Your task to perform on an android device: Search for 35 best books of all time Image 0: 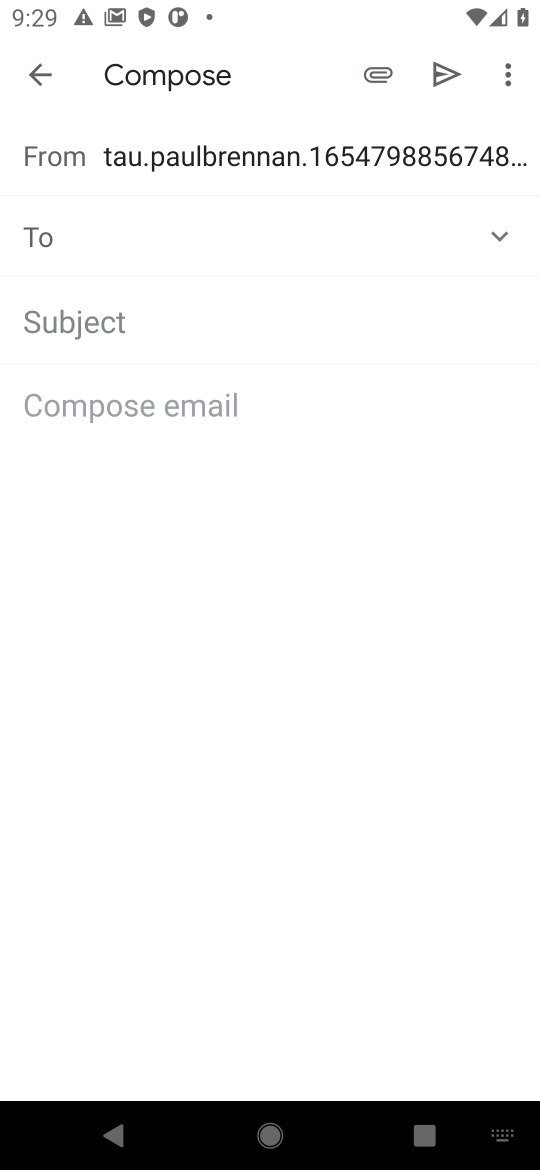
Step 0: press home button
Your task to perform on an android device: Search for 35 best books of all time Image 1: 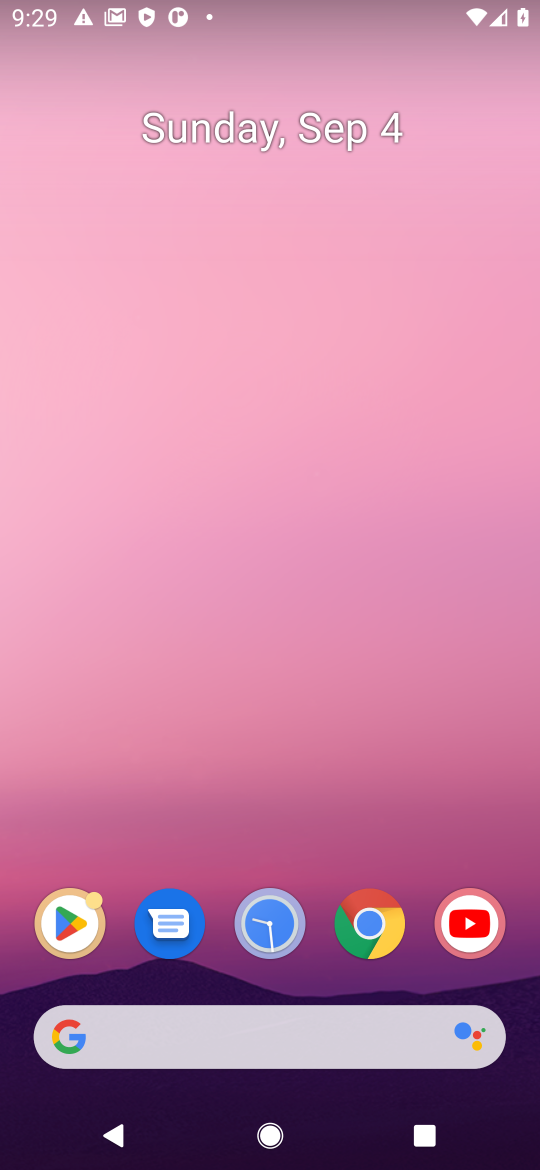
Step 1: click (362, 1031)
Your task to perform on an android device: Search for 35 best books of all time Image 2: 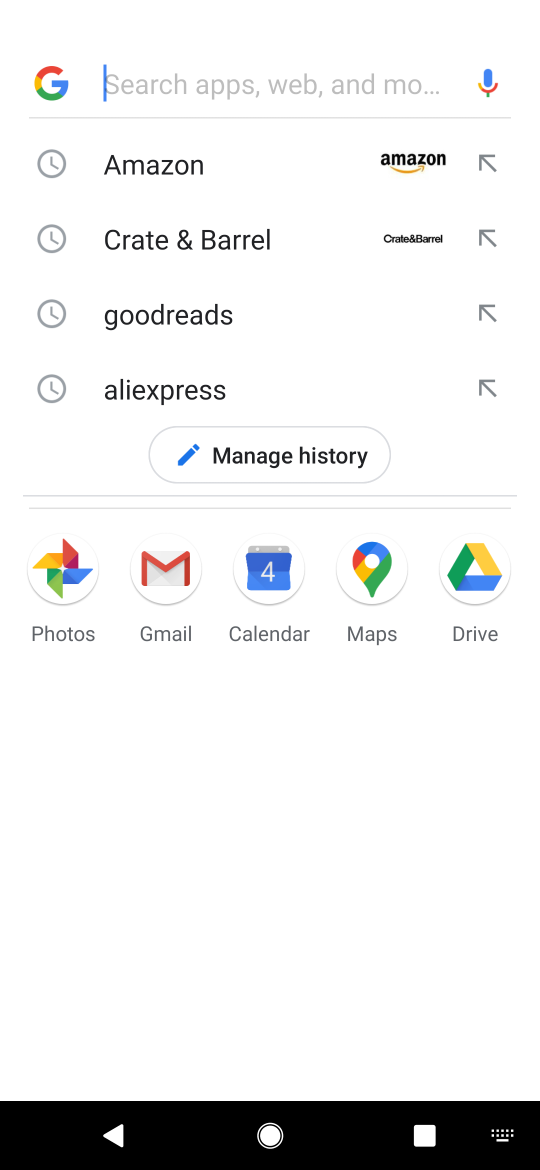
Step 2: press enter
Your task to perform on an android device: Search for 35 best books of all time Image 3: 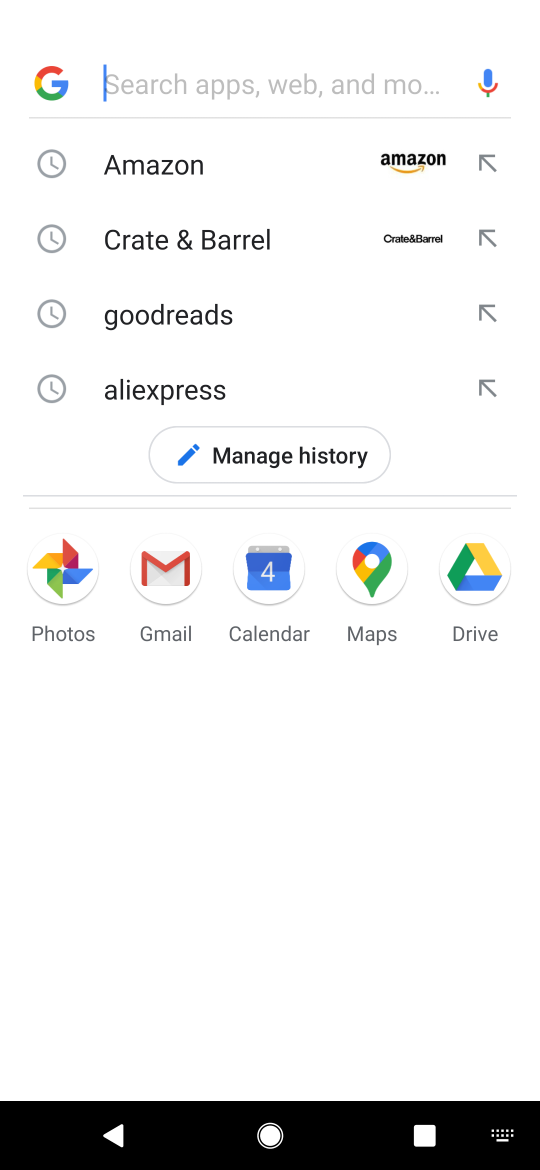
Step 3: type "35 best books of all time"
Your task to perform on an android device: Search for 35 best books of all time Image 4: 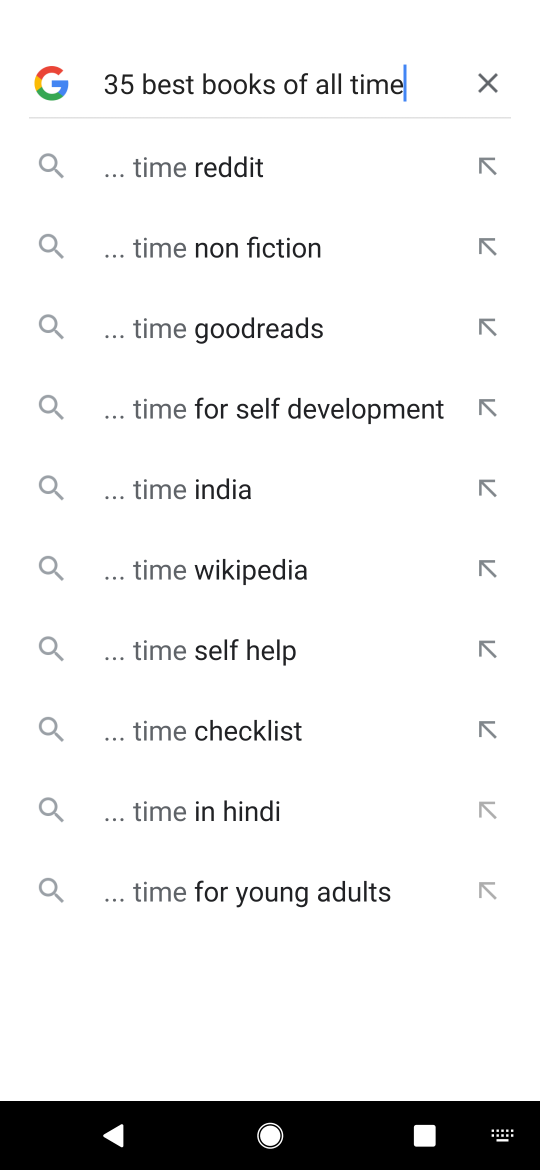
Step 4: press enter
Your task to perform on an android device: Search for 35 best books of all time Image 5: 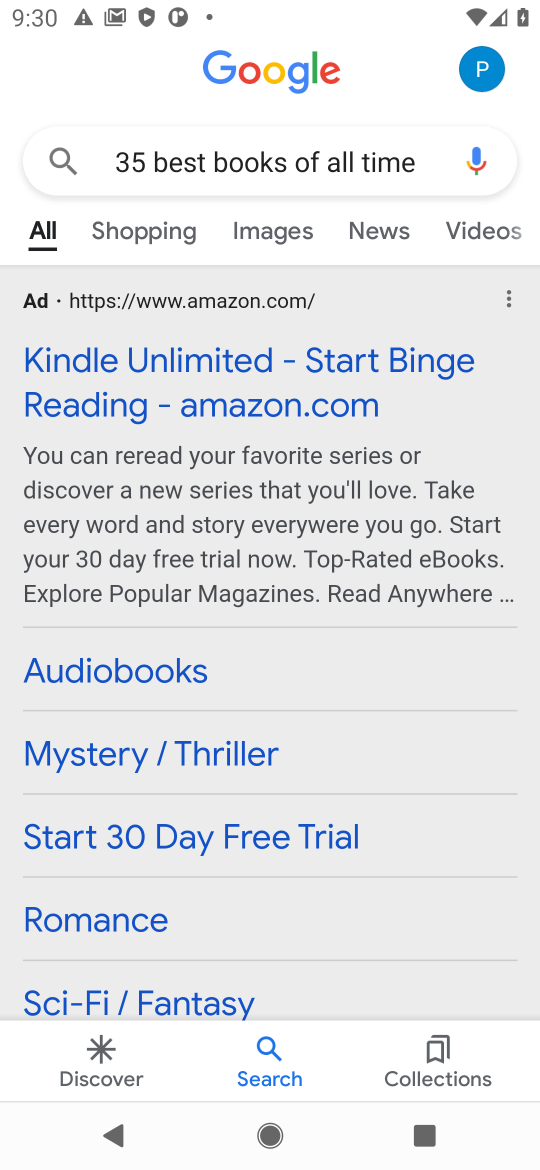
Step 5: click (254, 383)
Your task to perform on an android device: Search for 35 best books of all time Image 6: 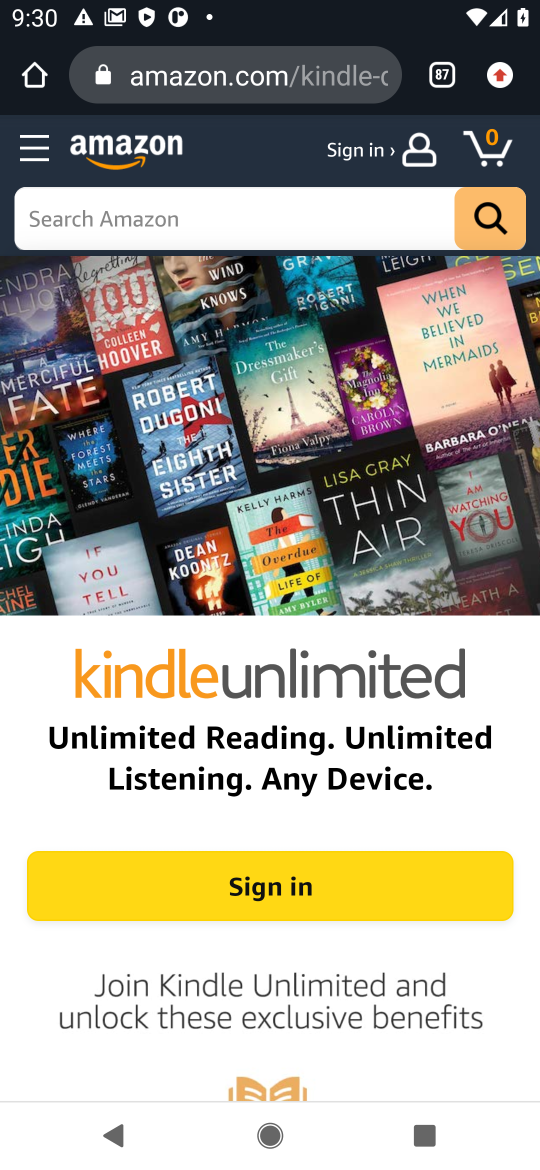
Step 6: task complete